Your task to perform on an android device: set the timer Image 0: 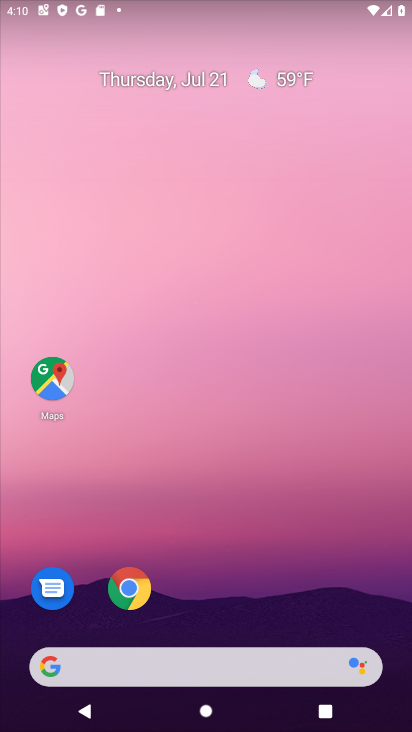
Step 0: drag from (245, 721) to (226, 178)
Your task to perform on an android device: set the timer Image 1: 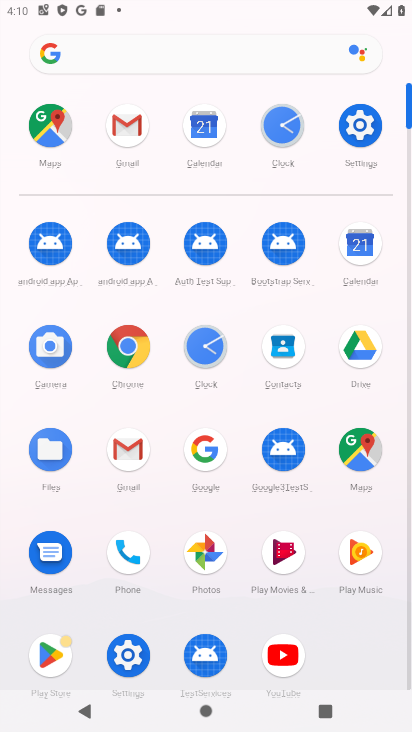
Step 1: click (211, 346)
Your task to perform on an android device: set the timer Image 2: 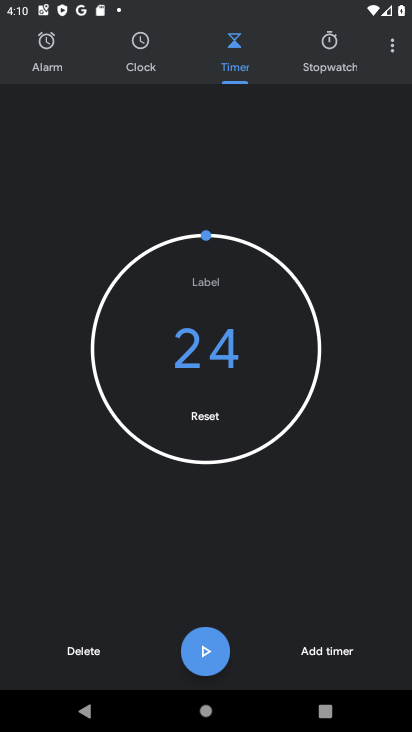
Step 2: click (313, 650)
Your task to perform on an android device: set the timer Image 3: 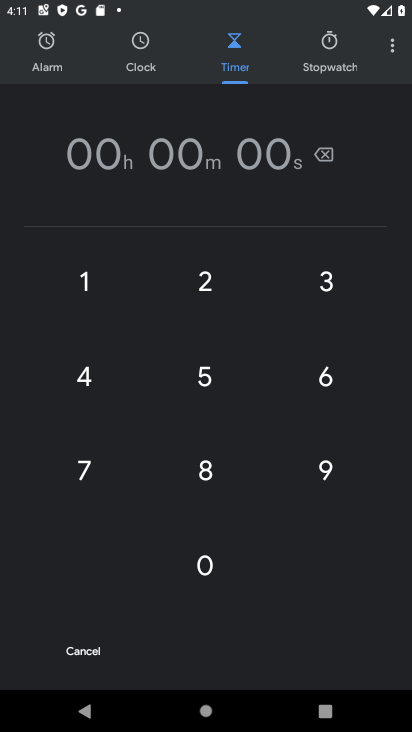
Step 3: click (203, 372)
Your task to perform on an android device: set the timer Image 4: 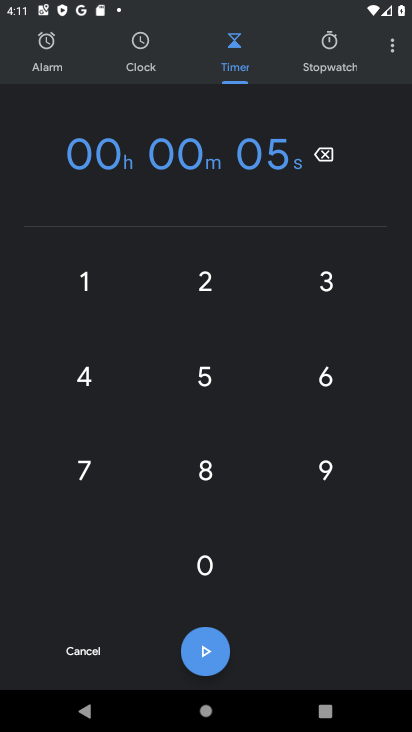
Step 4: click (202, 465)
Your task to perform on an android device: set the timer Image 5: 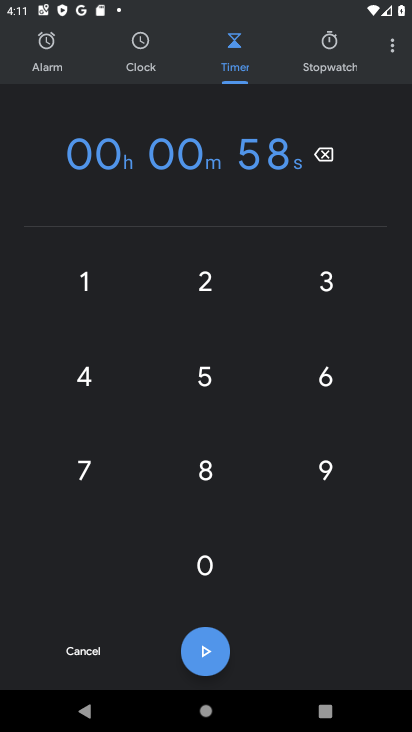
Step 5: click (75, 373)
Your task to perform on an android device: set the timer Image 6: 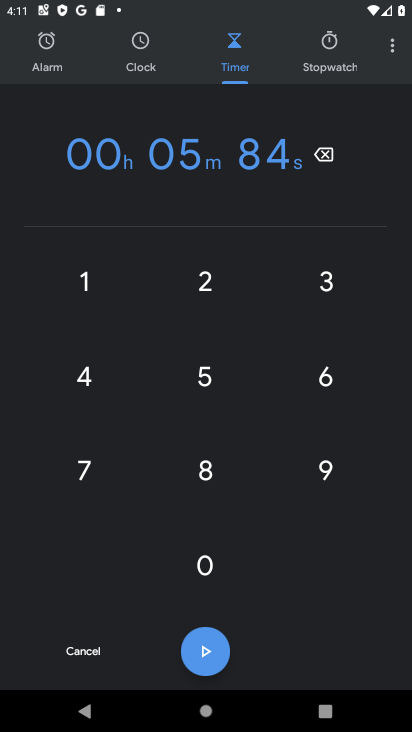
Step 6: click (197, 654)
Your task to perform on an android device: set the timer Image 7: 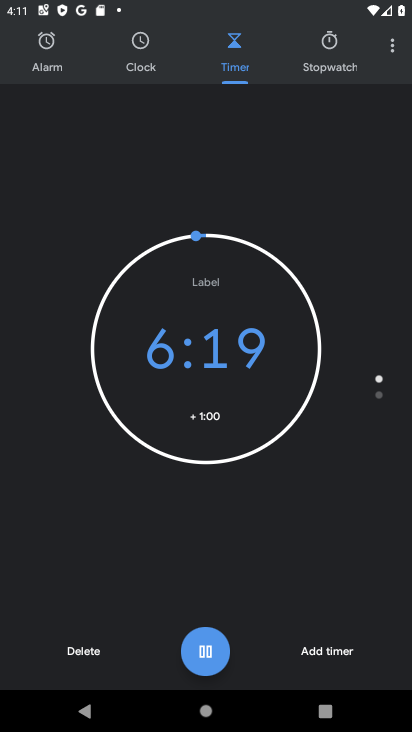
Step 7: task complete